Your task to perform on an android device: Go to settings Image 0: 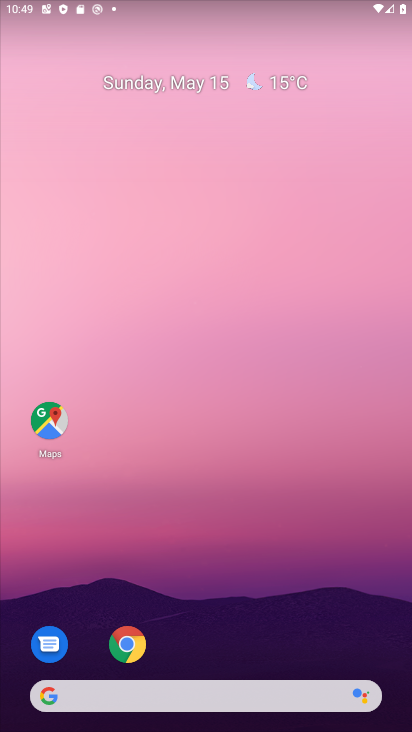
Step 0: drag from (184, 679) to (232, 229)
Your task to perform on an android device: Go to settings Image 1: 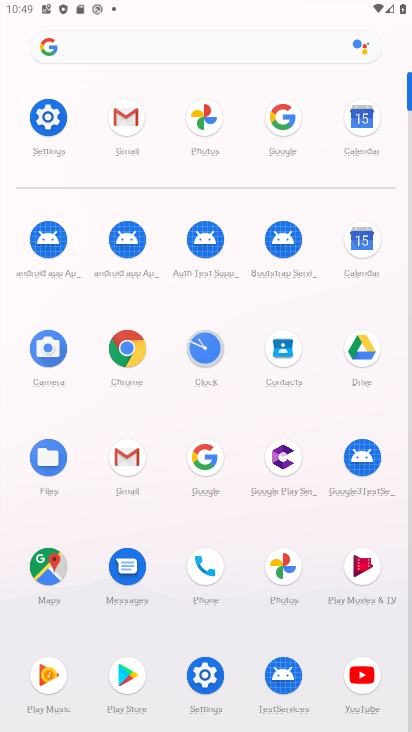
Step 1: click (44, 113)
Your task to perform on an android device: Go to settings Image 2: 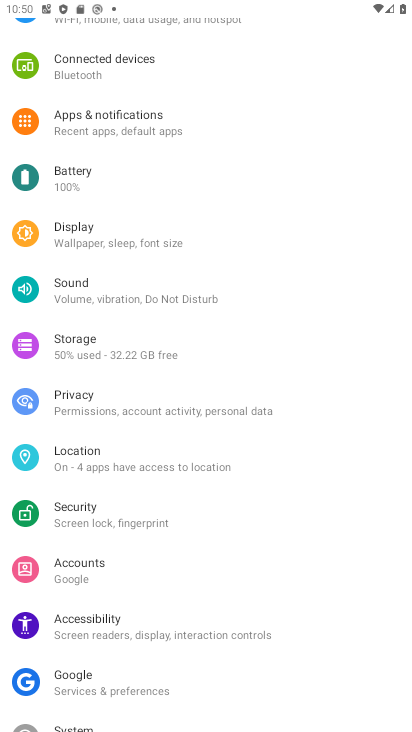
Step 2: task complete